Your task to perform on an android device: Open location settings Image 0: 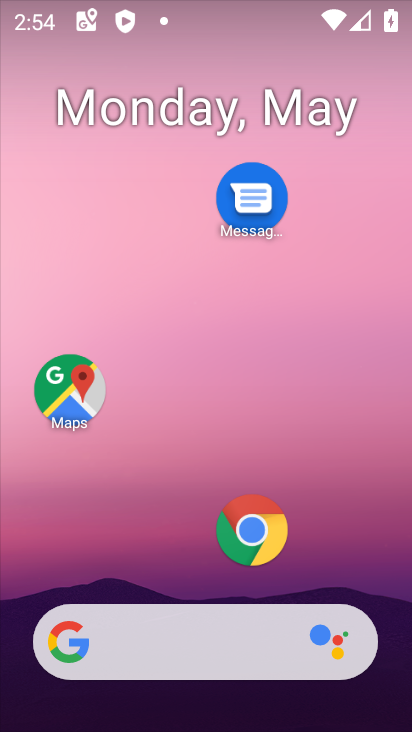
Step 0: drag from (160, 590) to (267, 57)
Your task to perform on an android device: Open location settings Image 1: 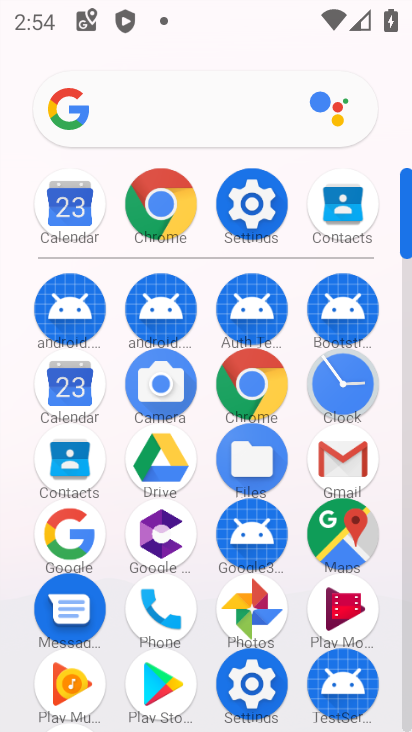
Step 1: click (258, 212)
Your task to perform on an android device: Open location settings Image 2: 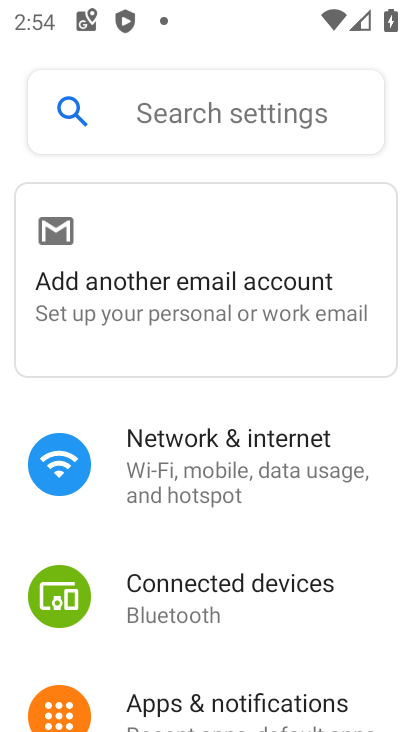
Step 2: drag from (196, 639) to (310, 206)
Your task to perform on an android device: Open location settings Image 3: 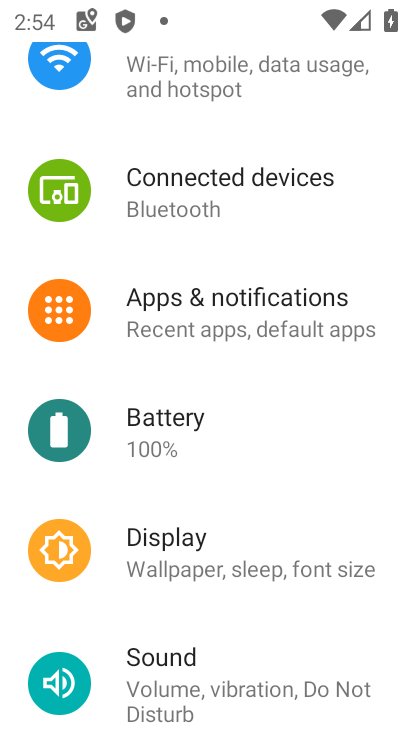
Step 3: drag from (226, 678) to (314, 221)
Your task to perform on an android device: Open location settings Image 4: 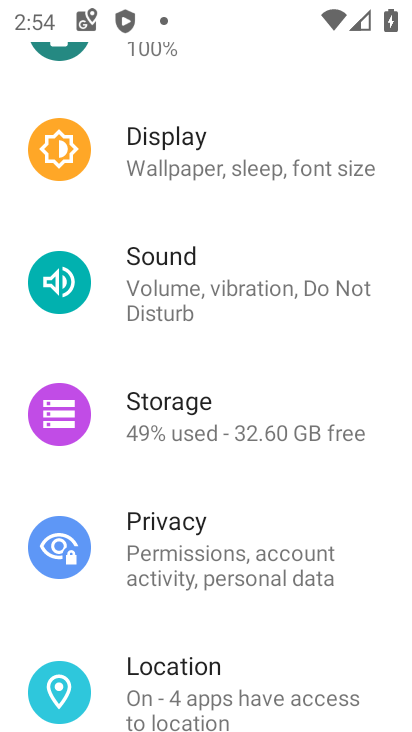
Step 4: drag from (175, 618) to (249, 271)
Your task to perform on an android device: Open location settings Image 5: 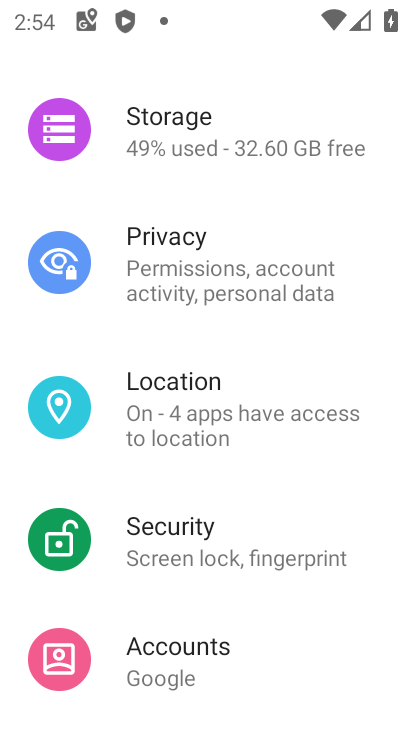
Step 5: click (218, 398)
Your task to perform on an android device: Open location settings Image 6: 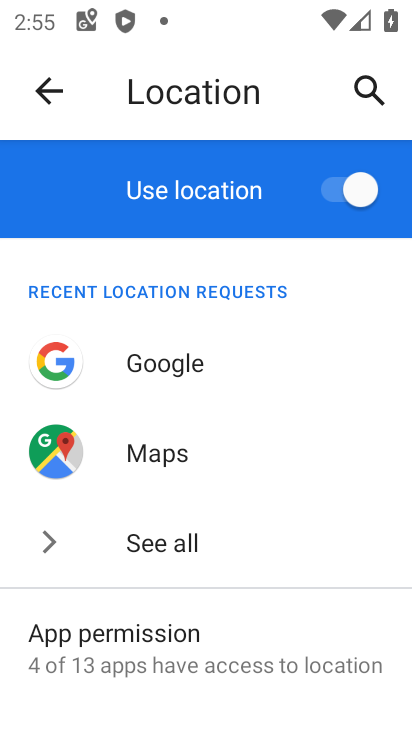
Step 6: task complete